Your task to perform on an android device: Open Youtube and go to "Your channel" Image 0: 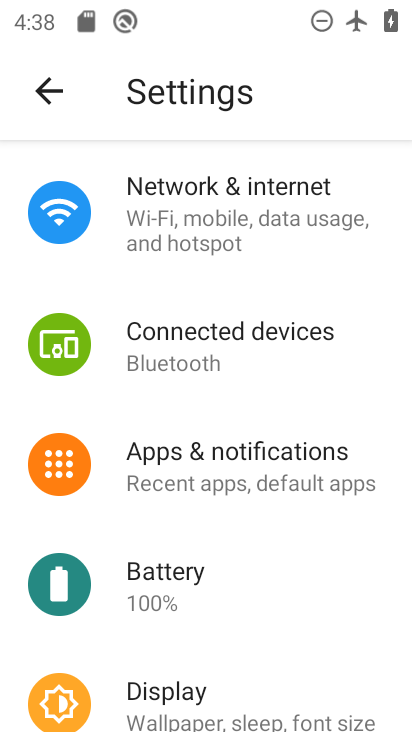
Step 0: press home button
Your task to perform on an android device: Open Youtube and go to "Your channel" Image 1: 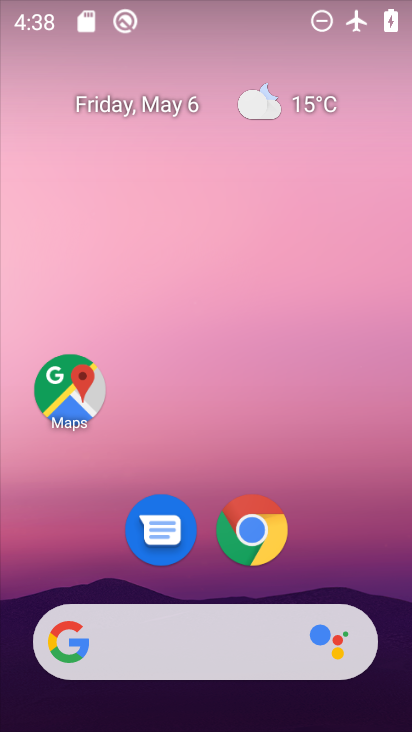
Step 1: drag from (368, 520) to (376, 440)
Your task to perform on an android device: Open Youtube and go to "Your channel" Image 2: 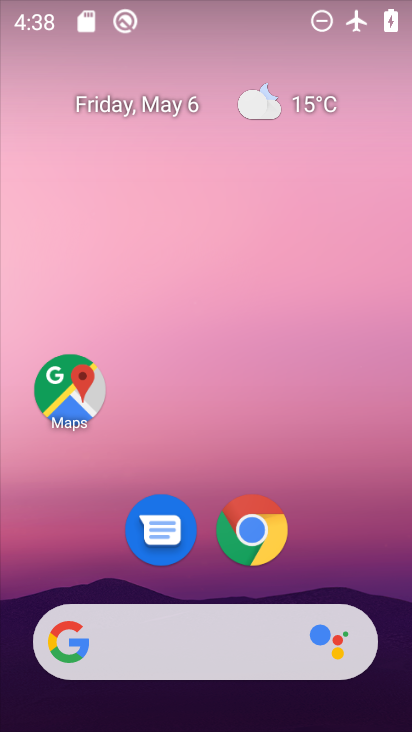
Step 2: drag from (324, 594) to (388, 1)
Your task to perform on an android device: Open Youtube and go to "Your channel" Image 3: 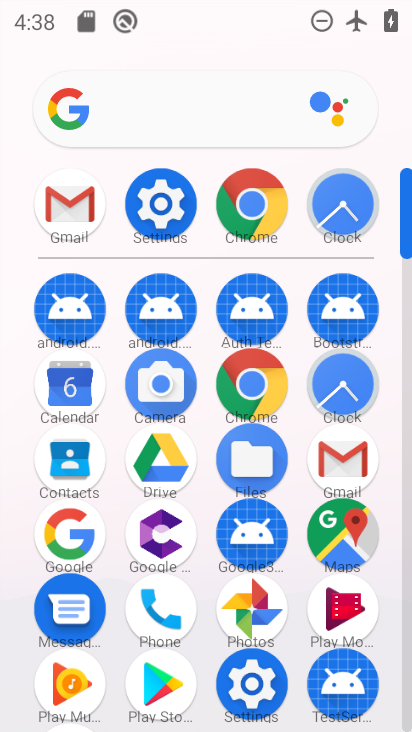
Step 3: drag from (394, 641) to (377, 233)
Your task to perform on an android device: Open Youtube and go to "Your channel" Image 4: 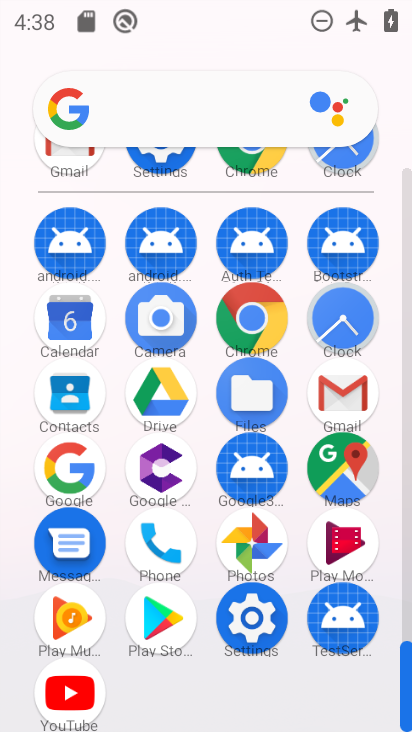
Step 4: click (75, 693)
Your task to perform on an android device: Open Youtube and go to "Your channel" Image 5: 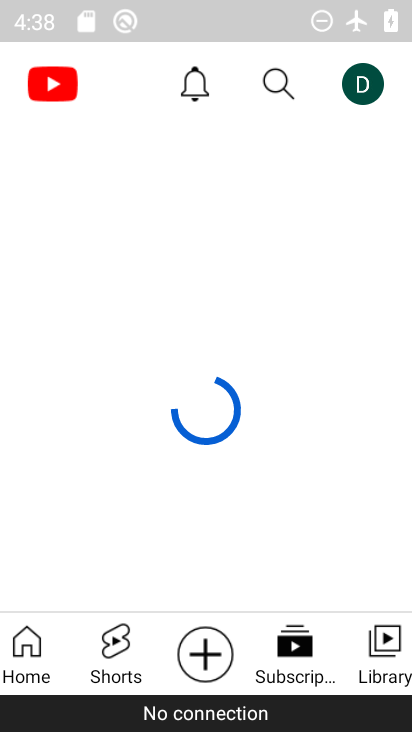
Step 5: click (368, 78)
Your task to perform on an android device: Open Youtube and go to "Your channel" Image 6: 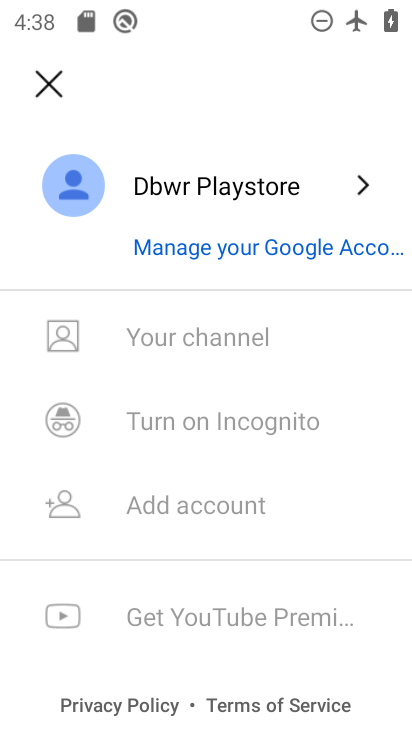
Step 6: click (170, 350)
Your task to perform on an android device: Open Youtube and go to "Your channel" Image 7: 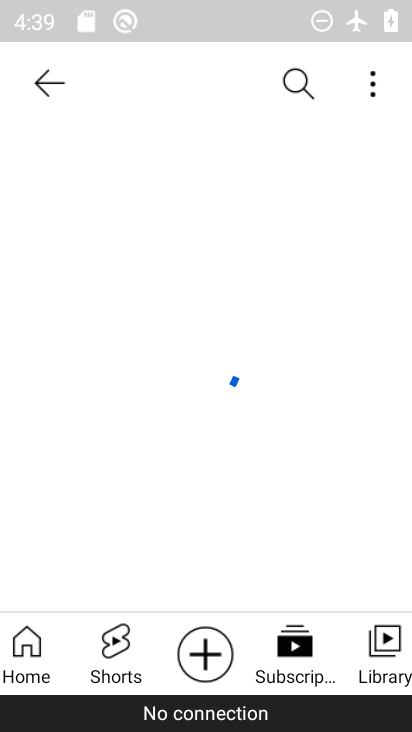
Step 7: task complete